Your task to perform on an android device: Go to eBay Image 0: 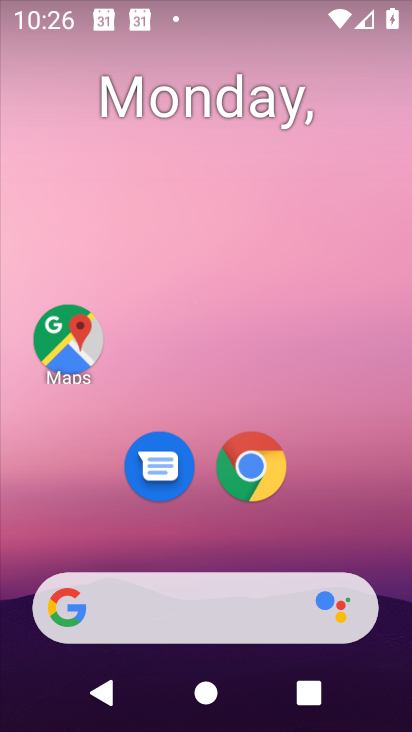
Step 0: drag from (367, 553) to (127, 6)
Your task to perform on an android device: Go to eBay Image 1: 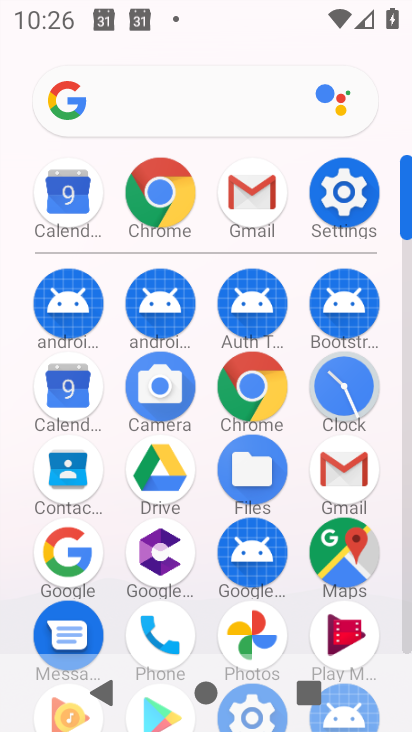
Step 1: click (160, 185)
Your task to perform on an android device: Go to eBay Image 2: 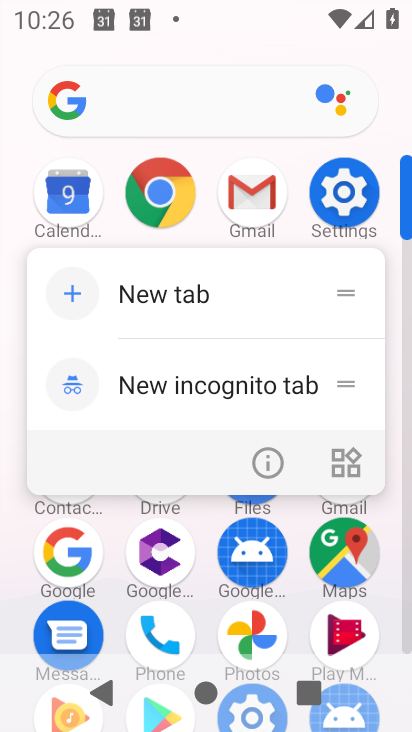
Step 2: click (172, 214)
Your task to perform on an android device: Go to eBay Image 3: 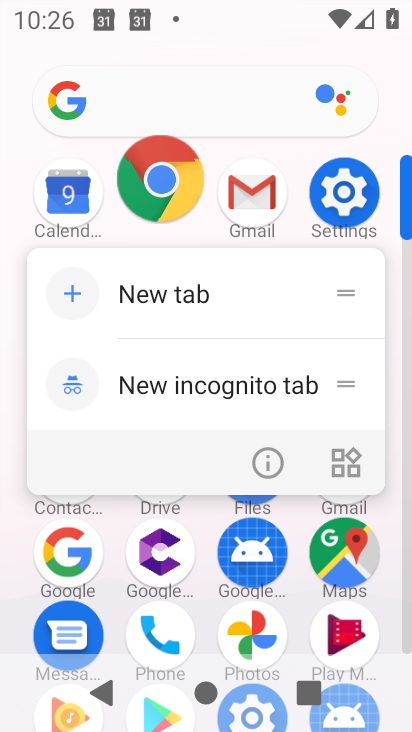
Step 3: click (177, 199)
Your task to perform on an android device: Go to eBay Image 4: 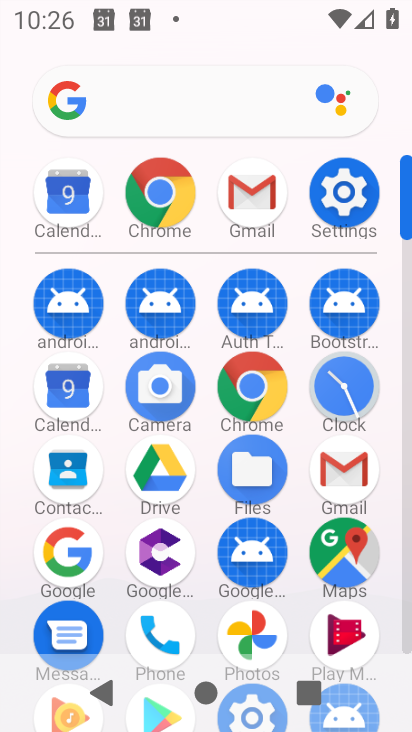
Step 4: click (182, 199)
Your task to perform on an android device: Go to eBay Image 5: 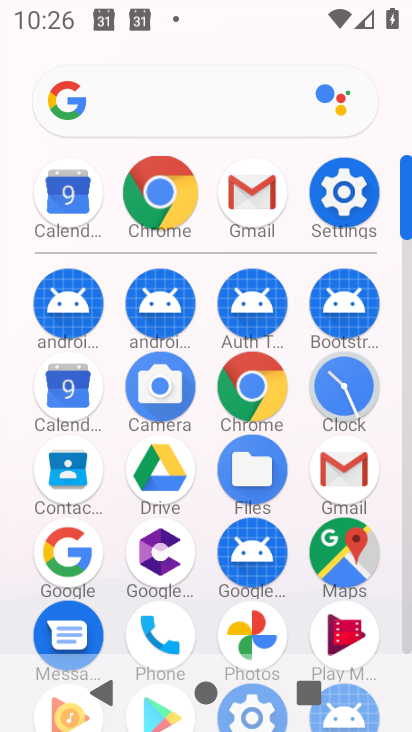
Step 5: click (182, 199)
Your task to perform on an android device: Go to eBay Image 6: 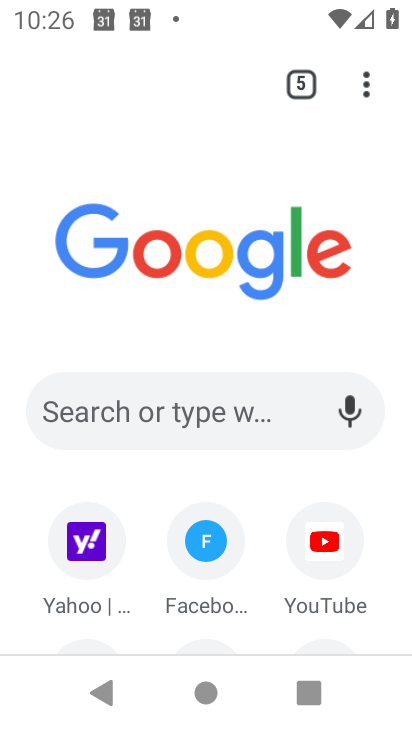
Step 6: drag from (262, 495) to (123, 70)
Your task to perform on an android device: Go to eBay Image 7: 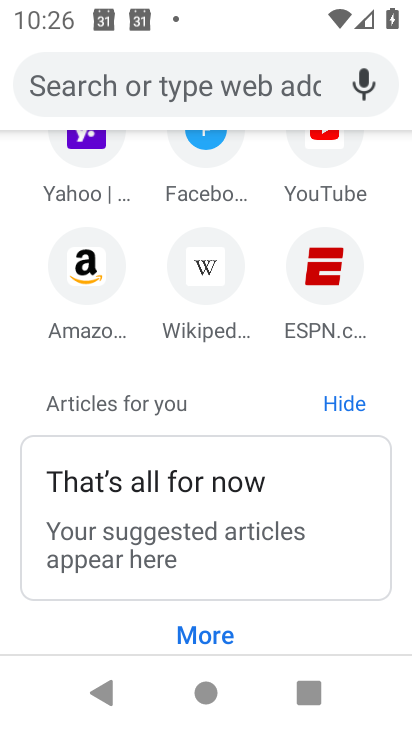
Step 7: drag from (203, 461) to (145, 257)
Your task to perform on an android device: Go to eBay Image 8: 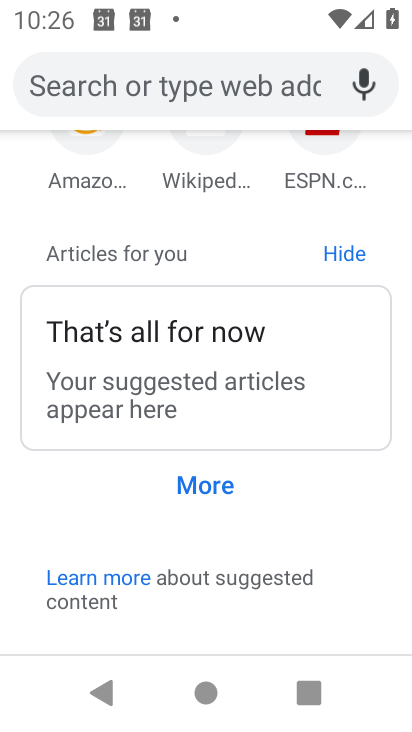
Step 8: drag from (208, 269) to (235, 506)
Your task to perform on an android device: Go to eBay Image 9: 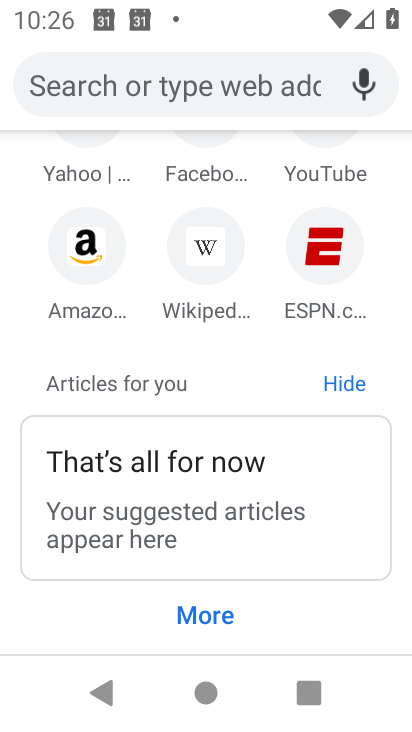
Step 9: drag from (264, 380) to (285, 533)
Your task to perform on an android device: Go to eBay Image 10: 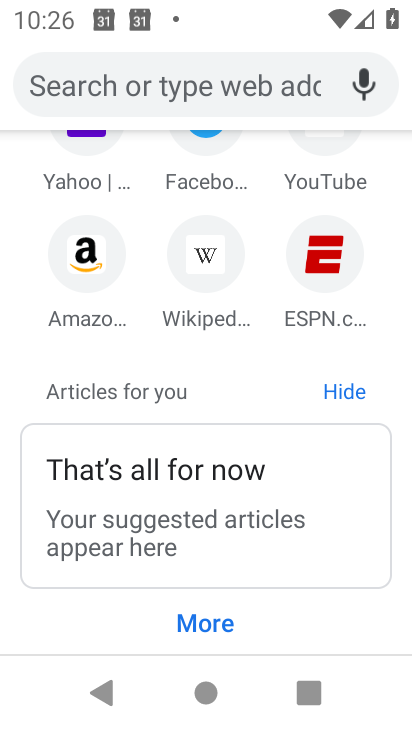
Step 10: drag from (206, 332) to (254, 544)
Your task to perform on an android device: Go to eBay Image 11: 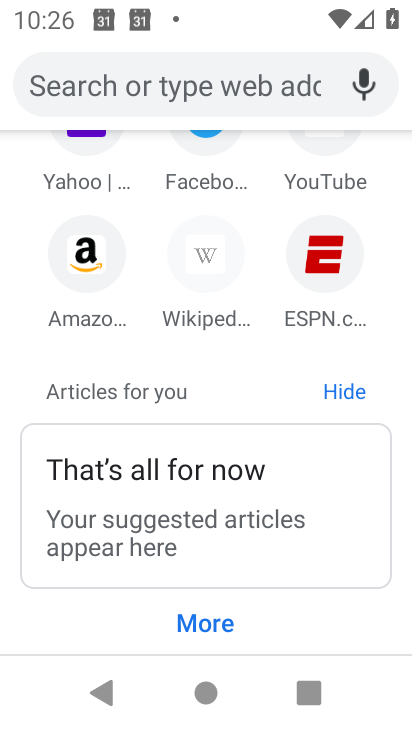
Step 11: drag from (213, 400) to (270, 605)
Your task to perform on an android device: Go to eBay Image 12: 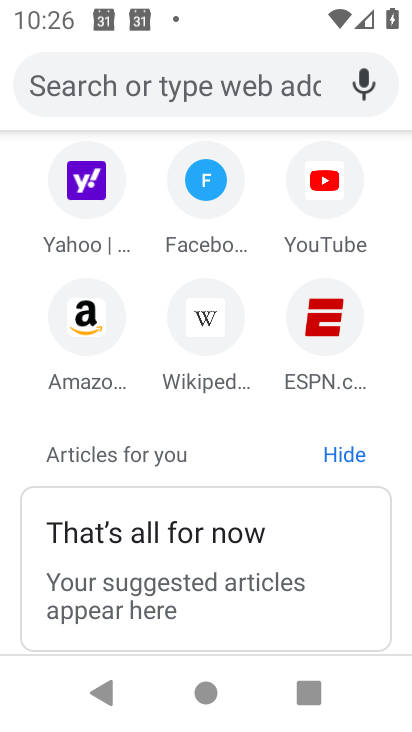
Step 12: drag from (237, 339) to (300, 623)
Your task to perform on an android device: Go to eBay Image 13: 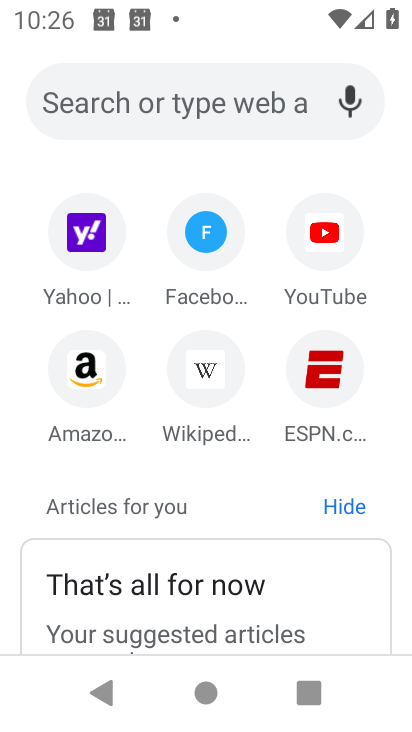
Step 13: drag from (271, 347) to (316, 649)
Your task to perform on an android device: Go to eBay Image 14: 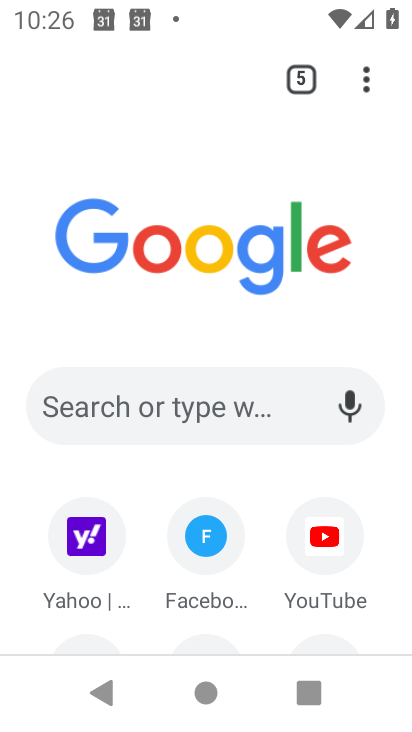
Step 14: drag from (212, 331) to (254, 571)
Your task to perform on an android device: Go to eBay Image 15: 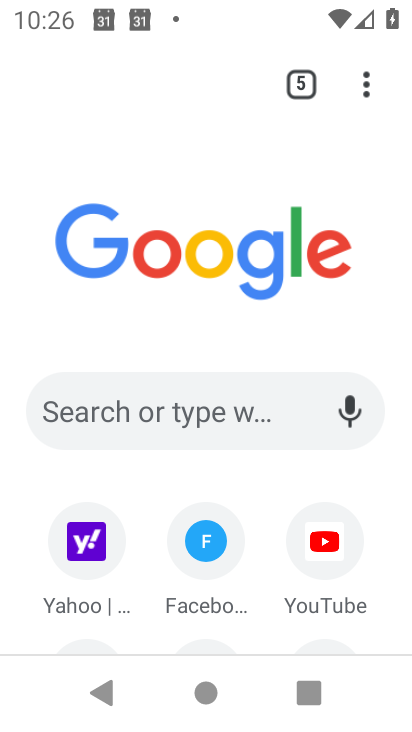
Step 15: click (75, 397)
Your task to perform on an android device: Go to eBay Image 16: 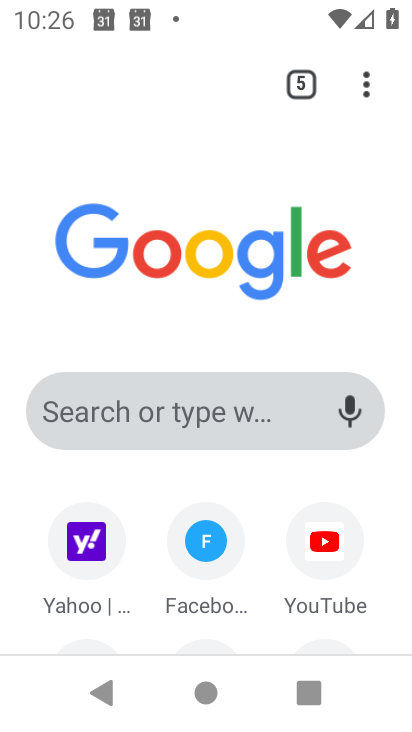
Step 16: click (74, 398)
Your task to perform on an android device: Go to eBay Image 17: 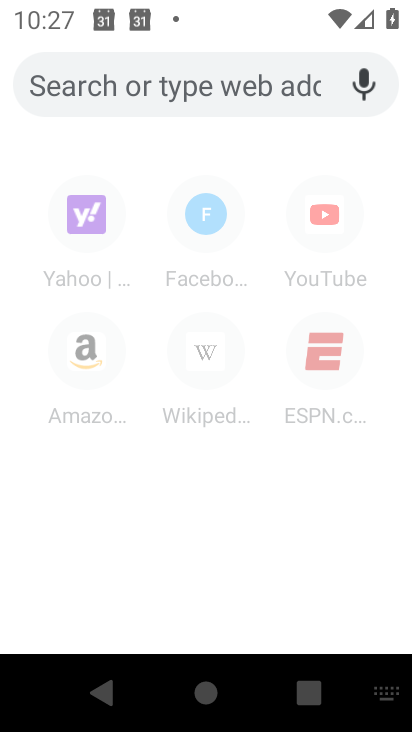
Step 17: type "ebay"
Your task to perform on an android device: Go to eBay Image 18: 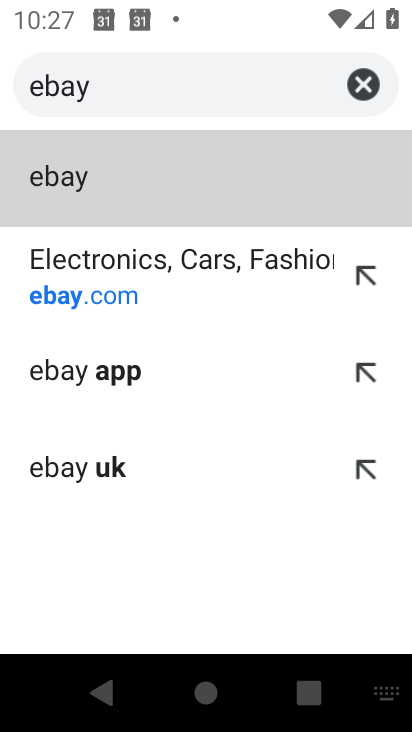
Step 18: click (126, 294)
Your task to perform on an android device: Go to eBay Image 19: 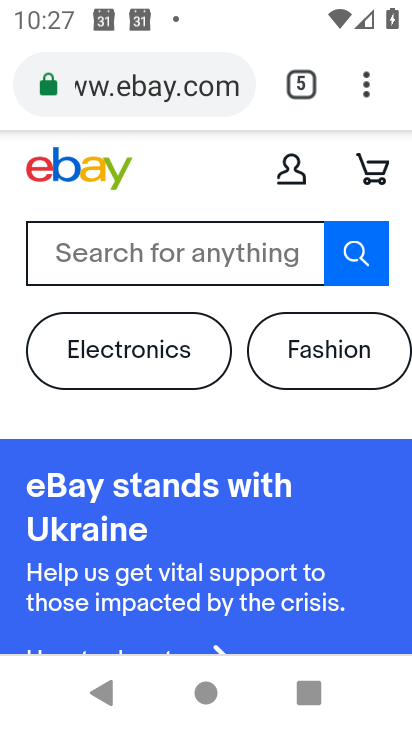
Step 19: task complete